Your task to perform on an android device: View the shopping cart on costco.com. Add razer blackwidow to the cart on costco.com Image 0: 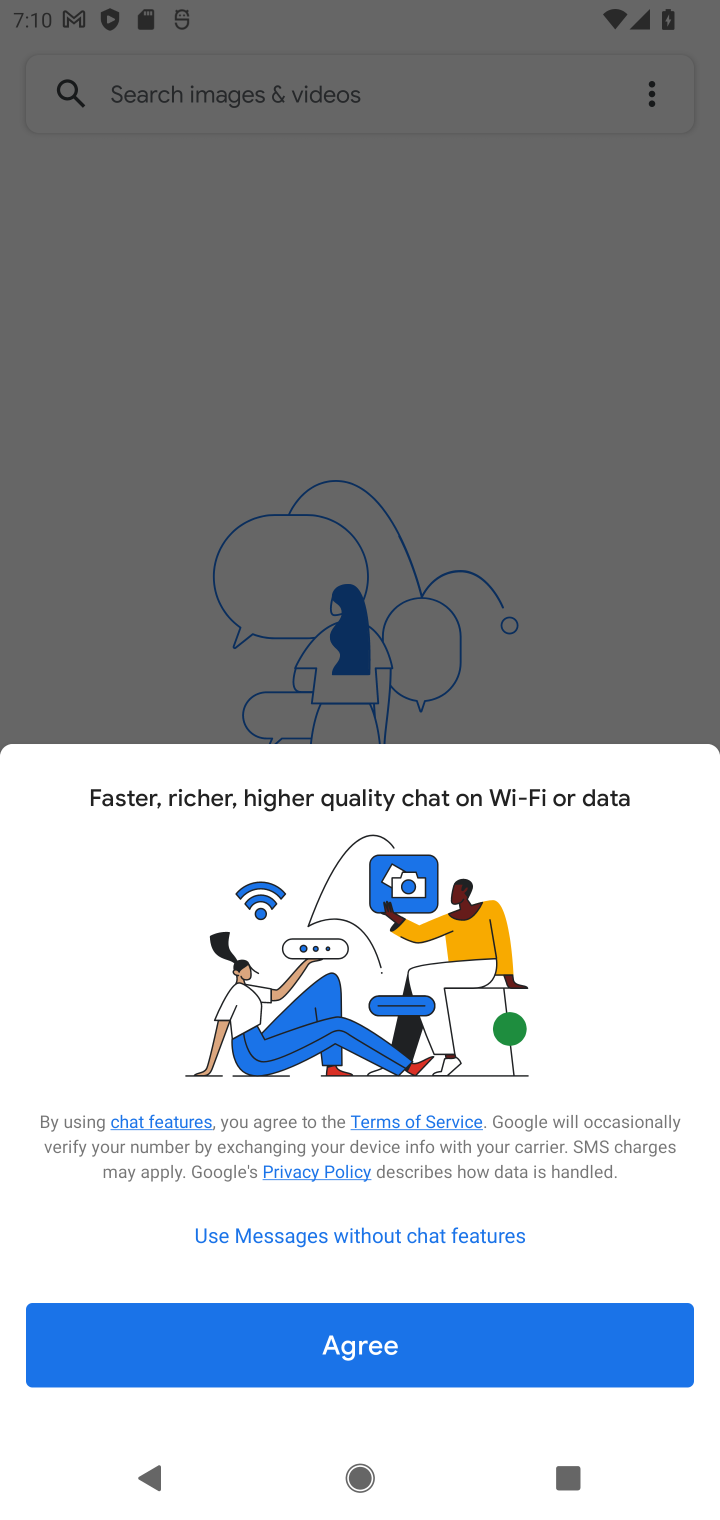
Step 0: press home button
Your task to perform on an android device: View the shopping cart on costco.com. Add razer blackwidow to the cart on costco.com Image 1: 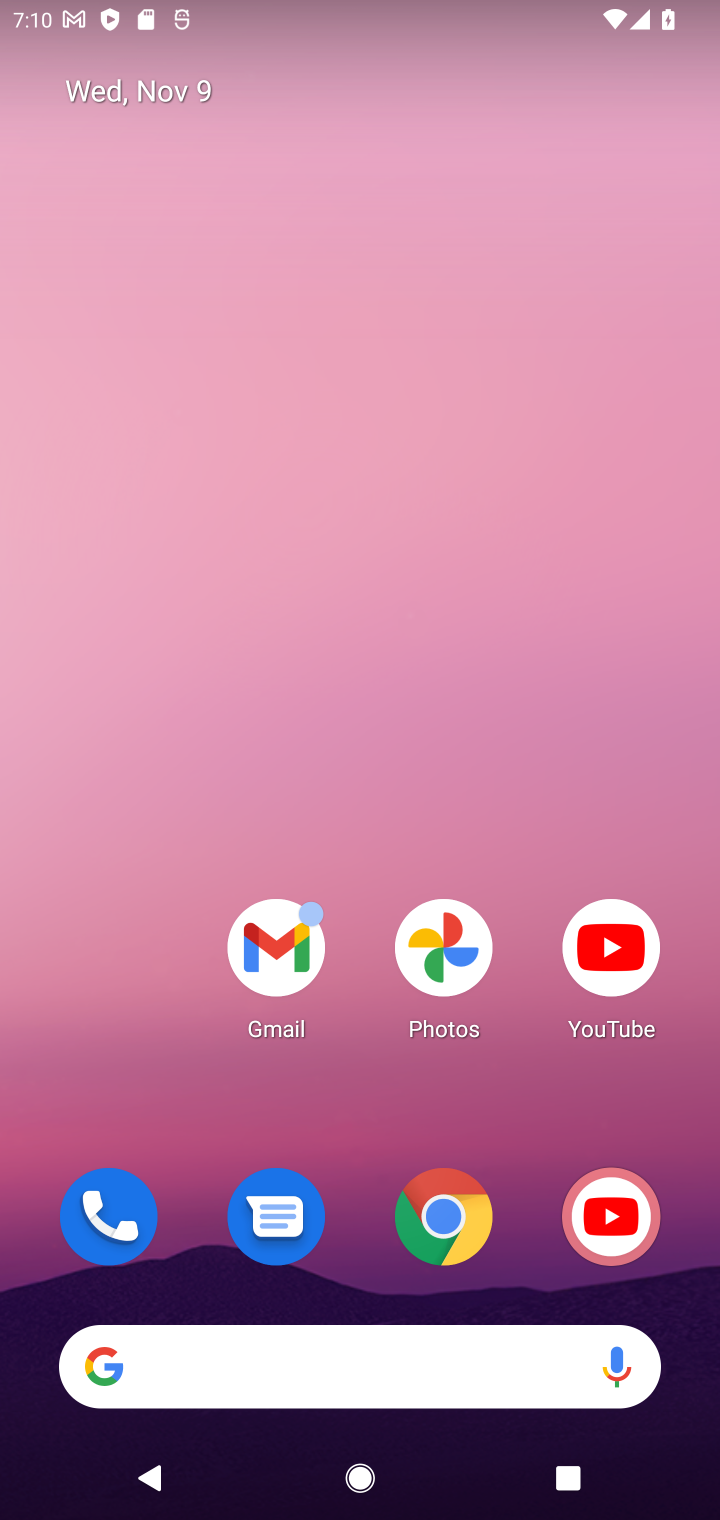
Step 1: drag from (388, 289) to (410, 155)
Your task to perform on an android device: View the shopping cart on costco.com. Add razer blackwidow to the cart on costco.com Image 2: 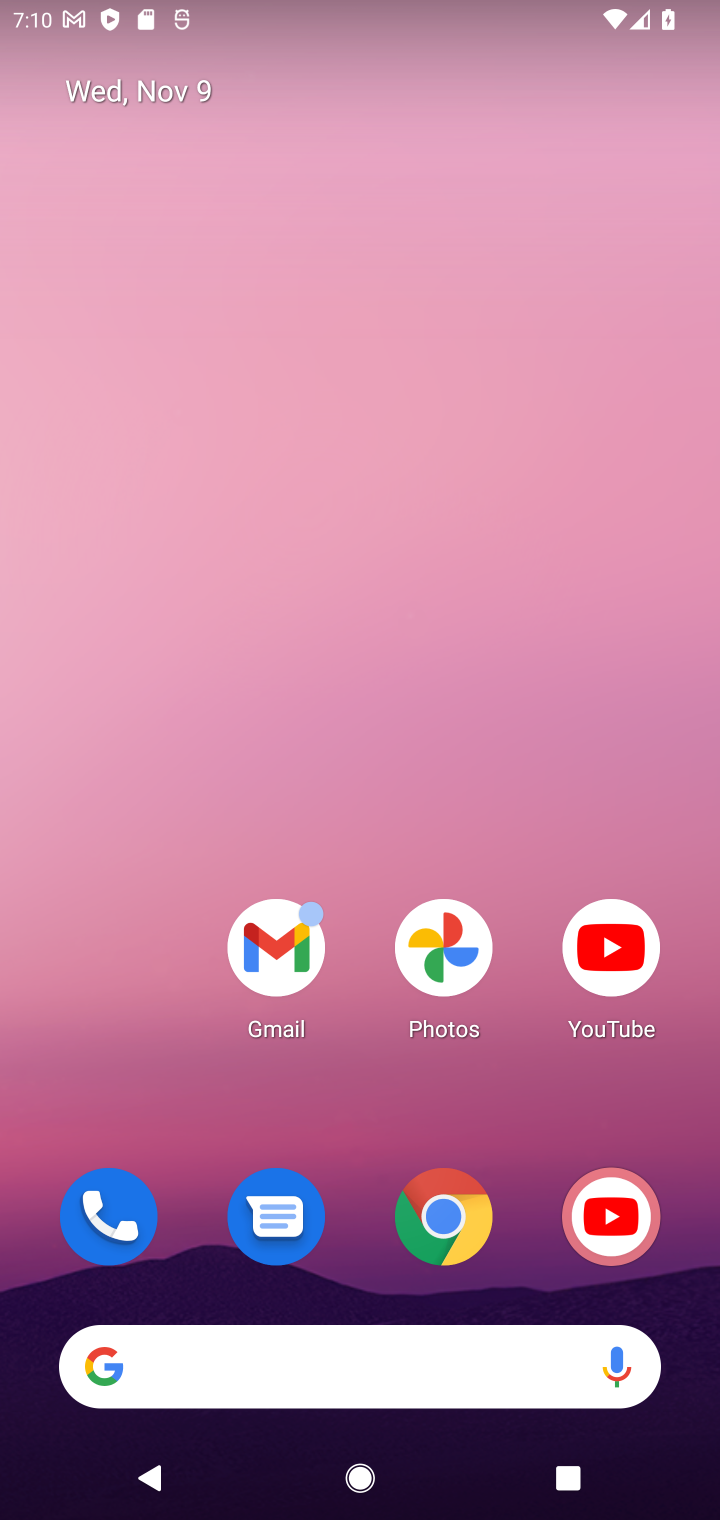
Step 2: drag from (469, 882) to (562, 243)
Your task to perform on an android device: View the shopping cart on costco.com. Add razer blackwidow to the cart on costco.com Image 3: 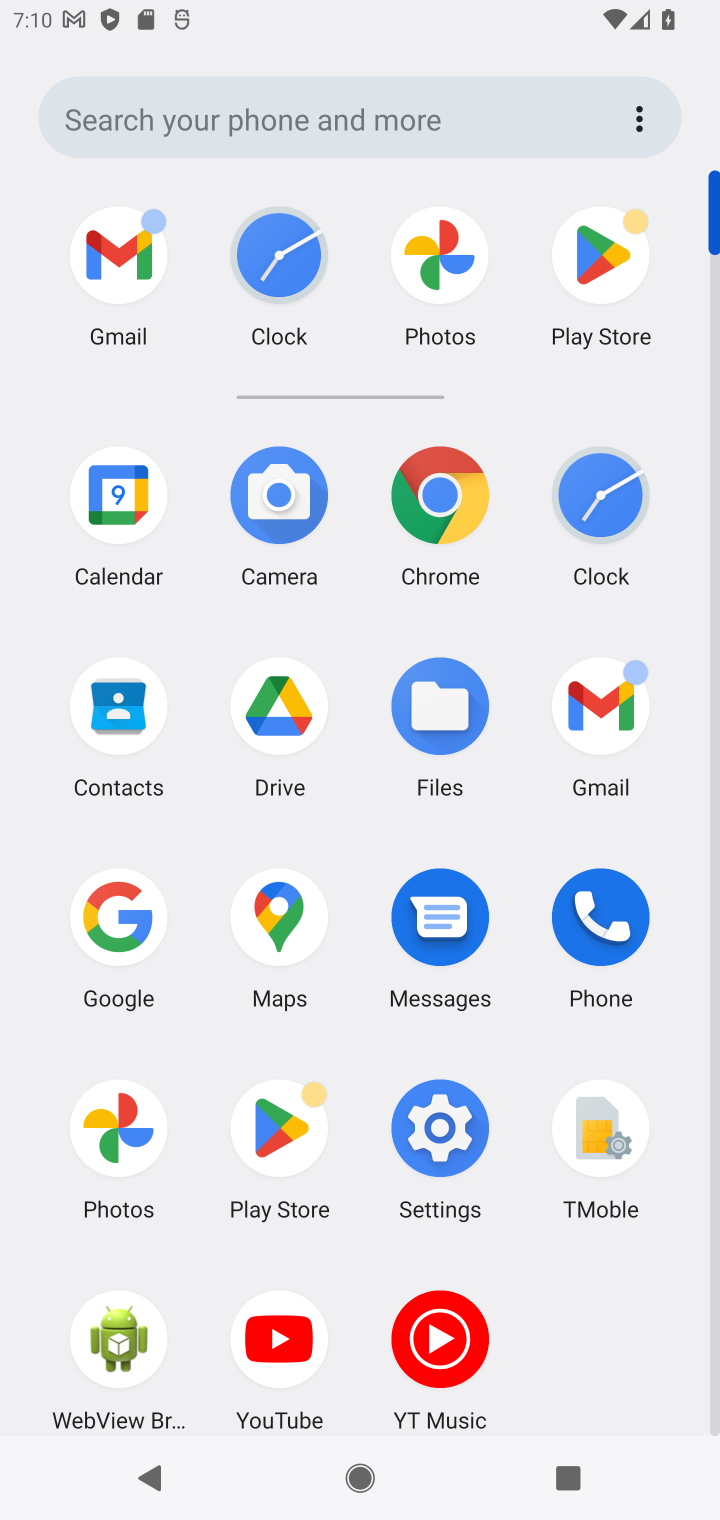
Step 3: click (445, 481)
Your task to perform on an android device: View the shopping cart on costco.com. Add razer blackwidow to the cart on costco.com Image 4: 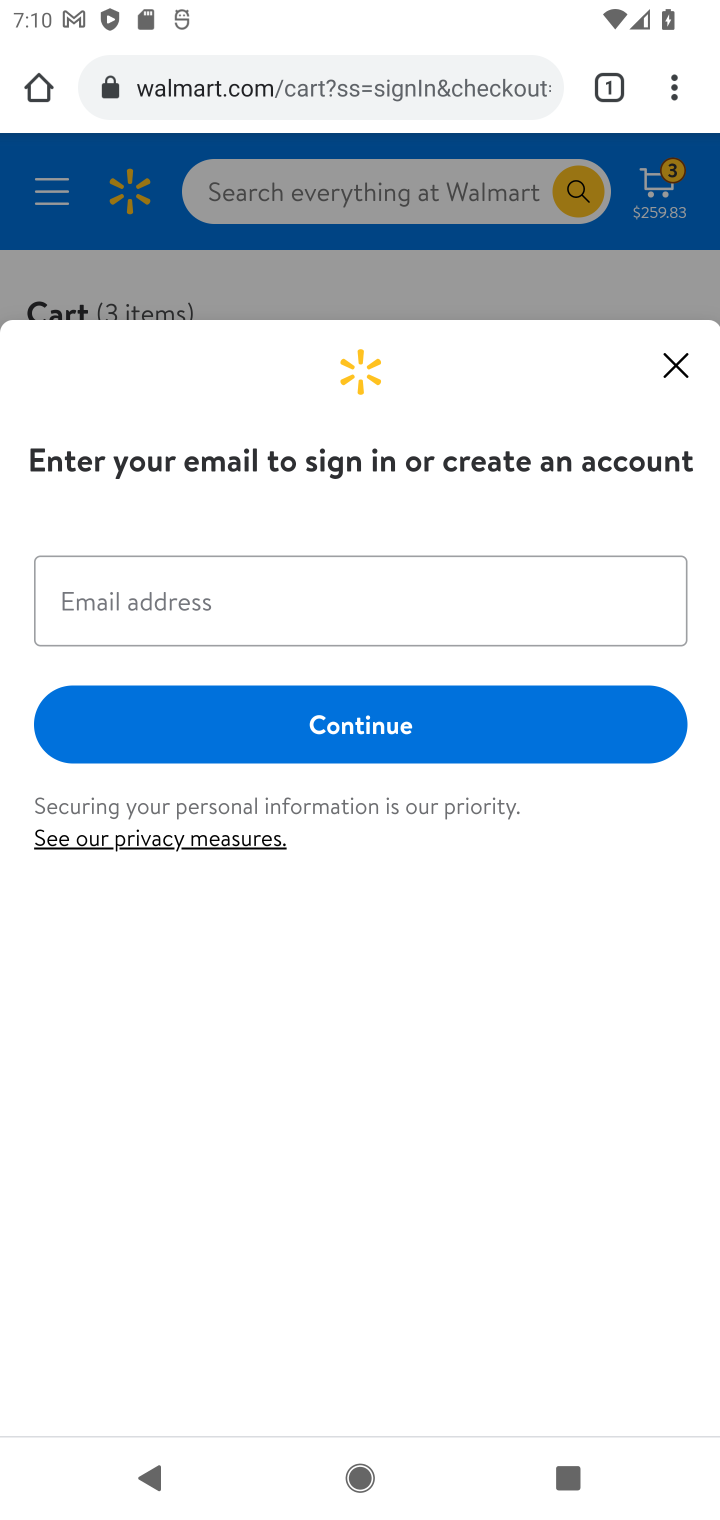
Step 4: click (338, 89)
Your task to perform on an android device: View the shopping cart on costco.com. Add razer blackwidow to the cart on costco.com Image 5: 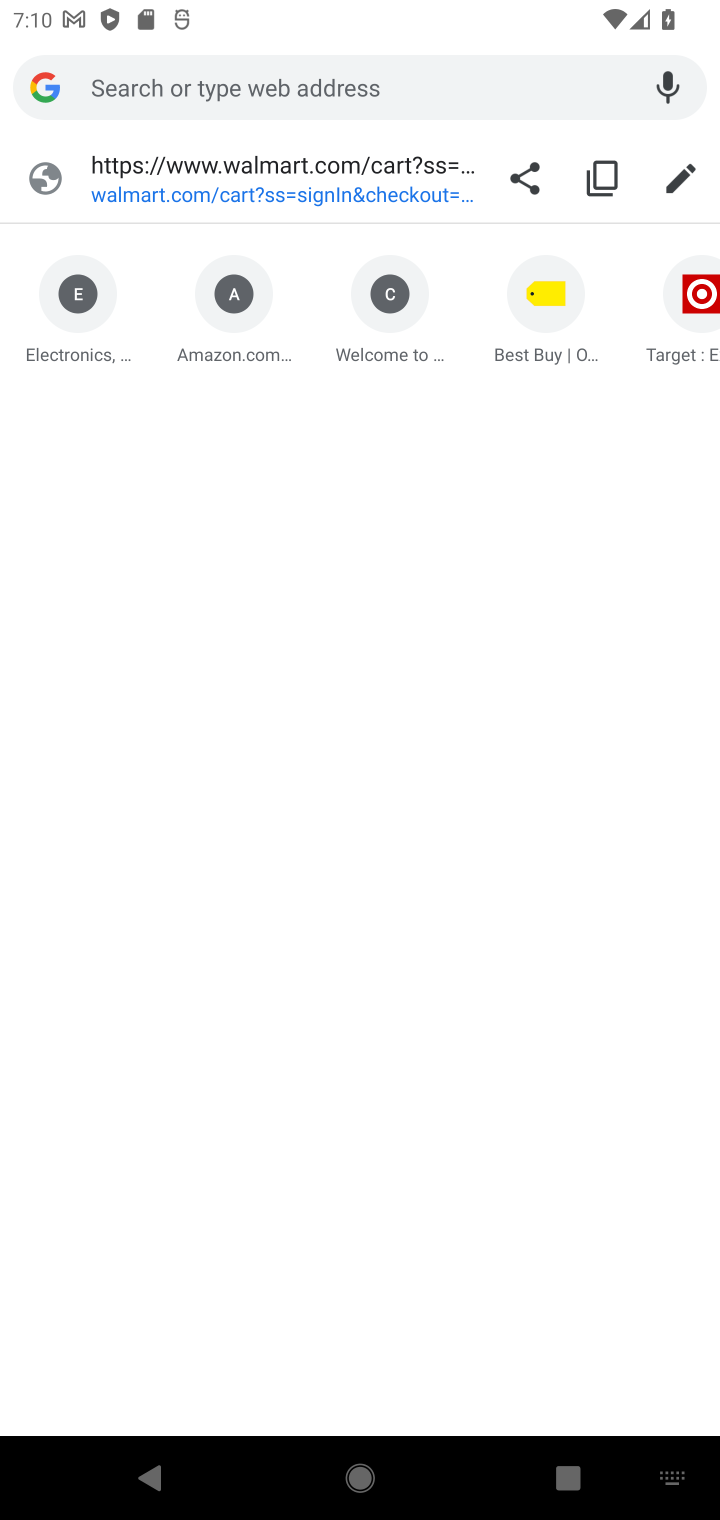
Step 5: type "costco.com"
Your task to perform on an android device: View the shopping cart on costco.com. Add razer blackwidow to the cart on costco.com Image 6: 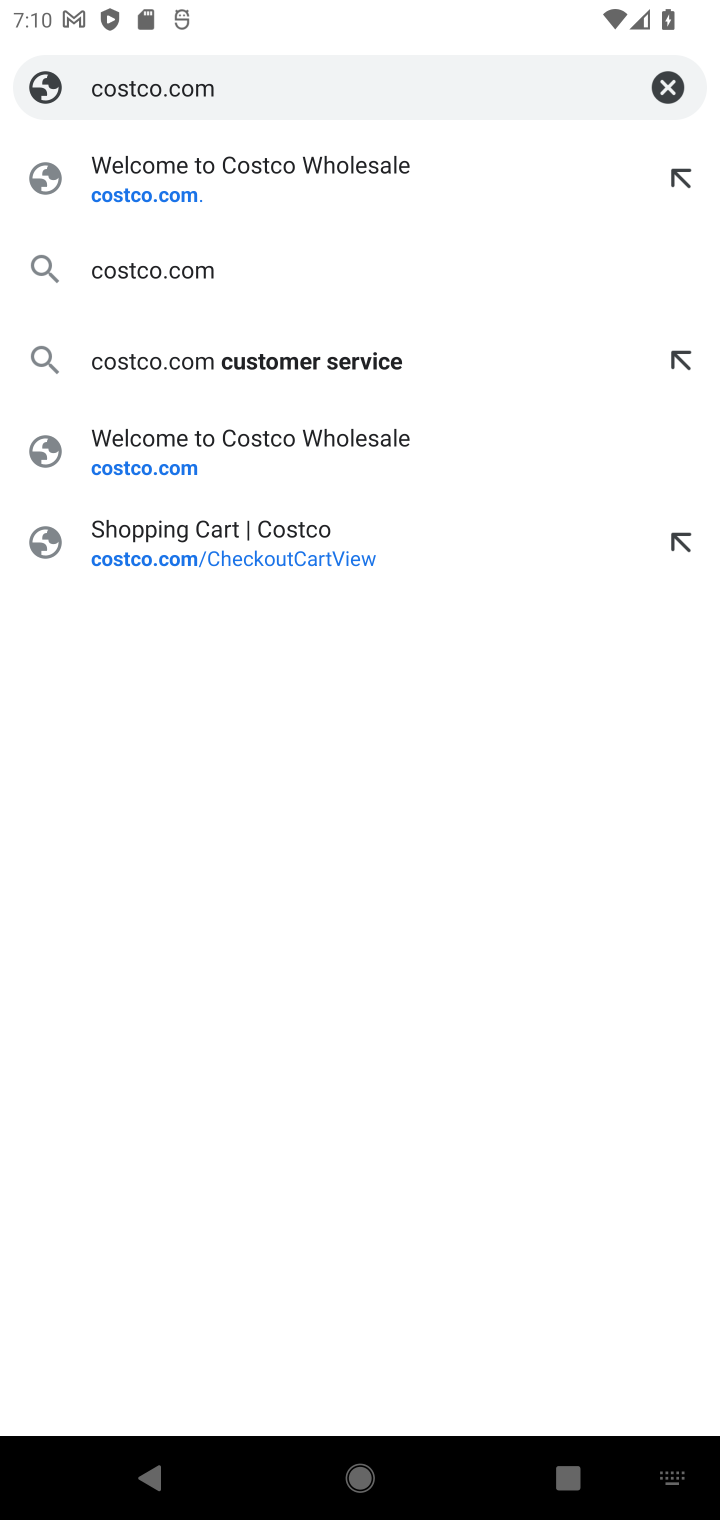
Step 6: press enter
Your task to perform on an android device: View the shopping cart on costco.com. Add razer blackwidow to the cart on costco.com Image 7: 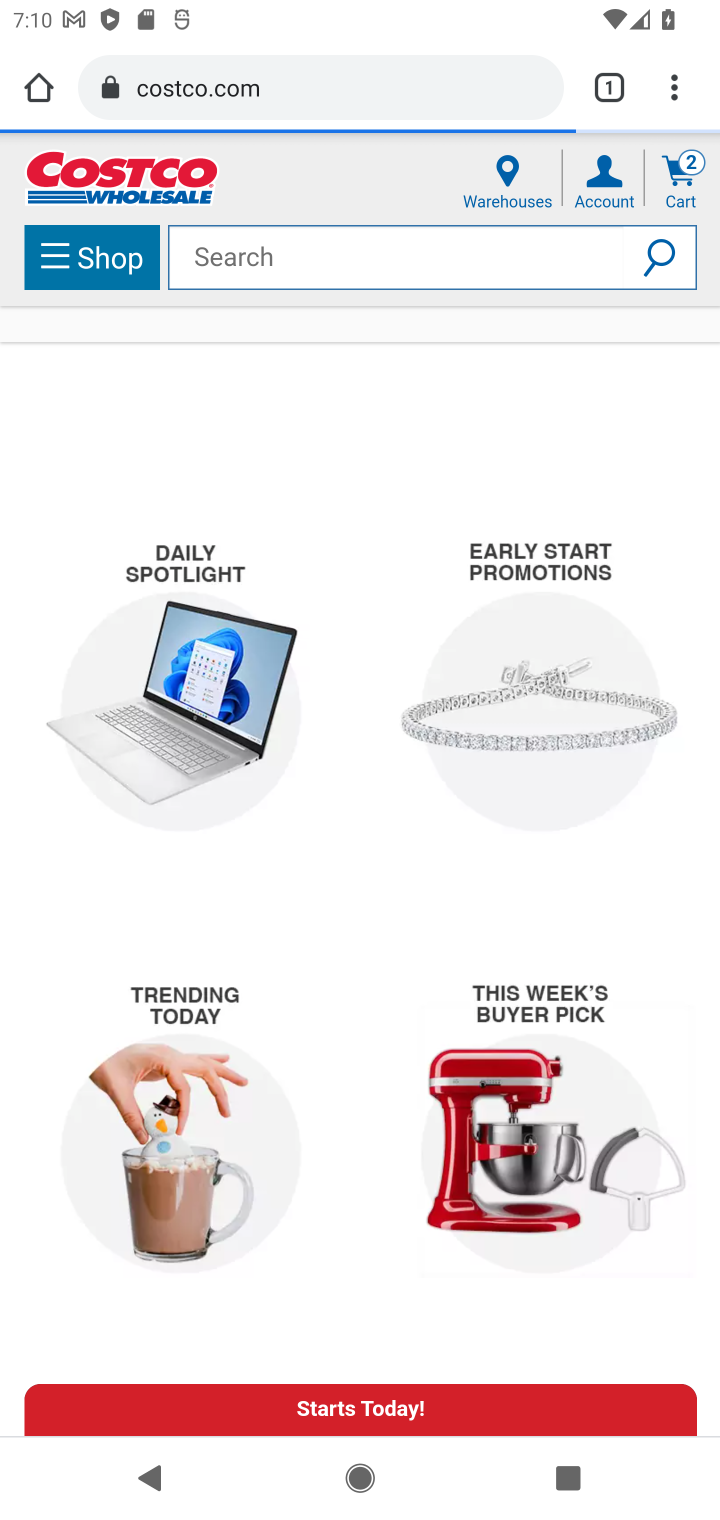
Step 7: click (389, 270)
Your task to perform on an android device: View the shopping cart on costco.com. Add razer blackwidow to the cart on costco.com Image 8: 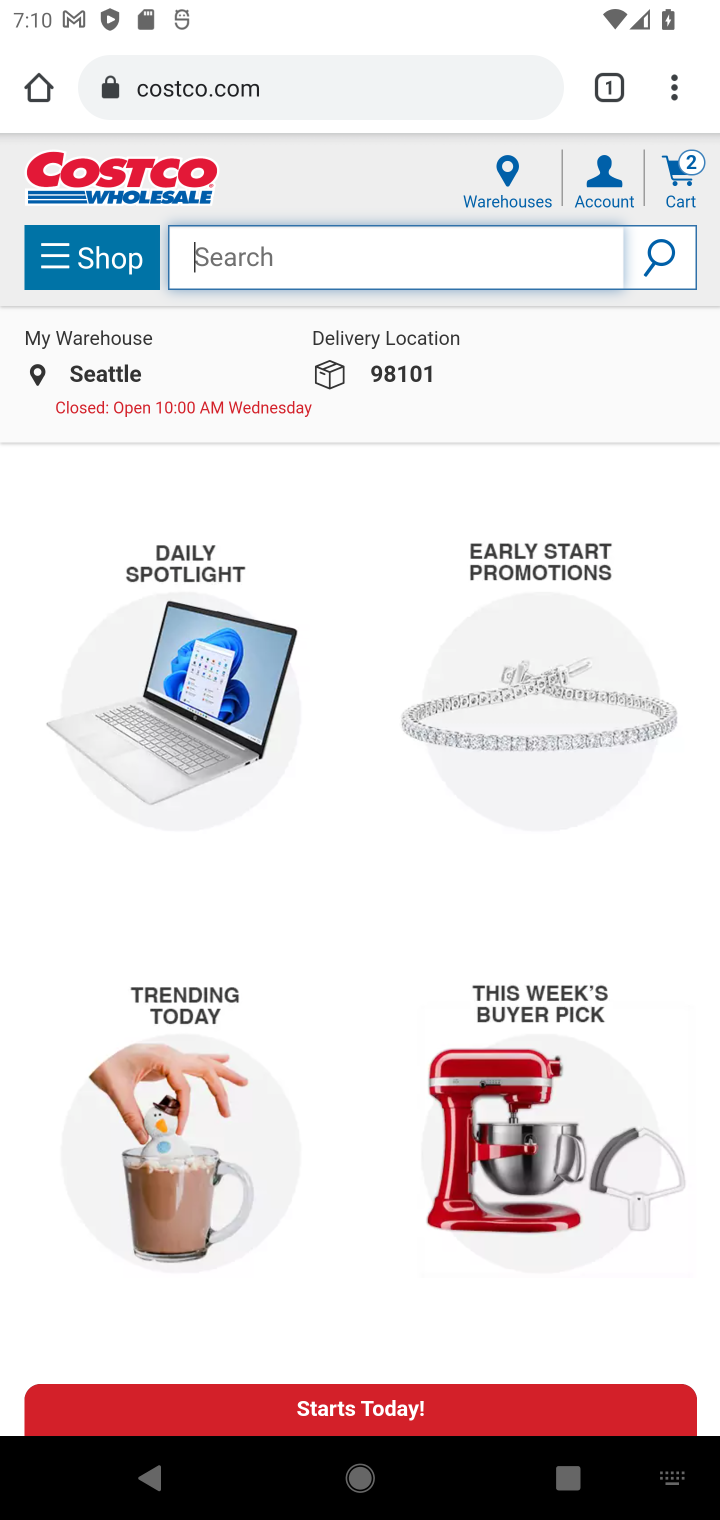
Step 8: type "razer blackwindow"
Your task to perform on an android device: View the shopping cart on costco.com. Add razer blackwidow to the cart on costco.com Image 9: 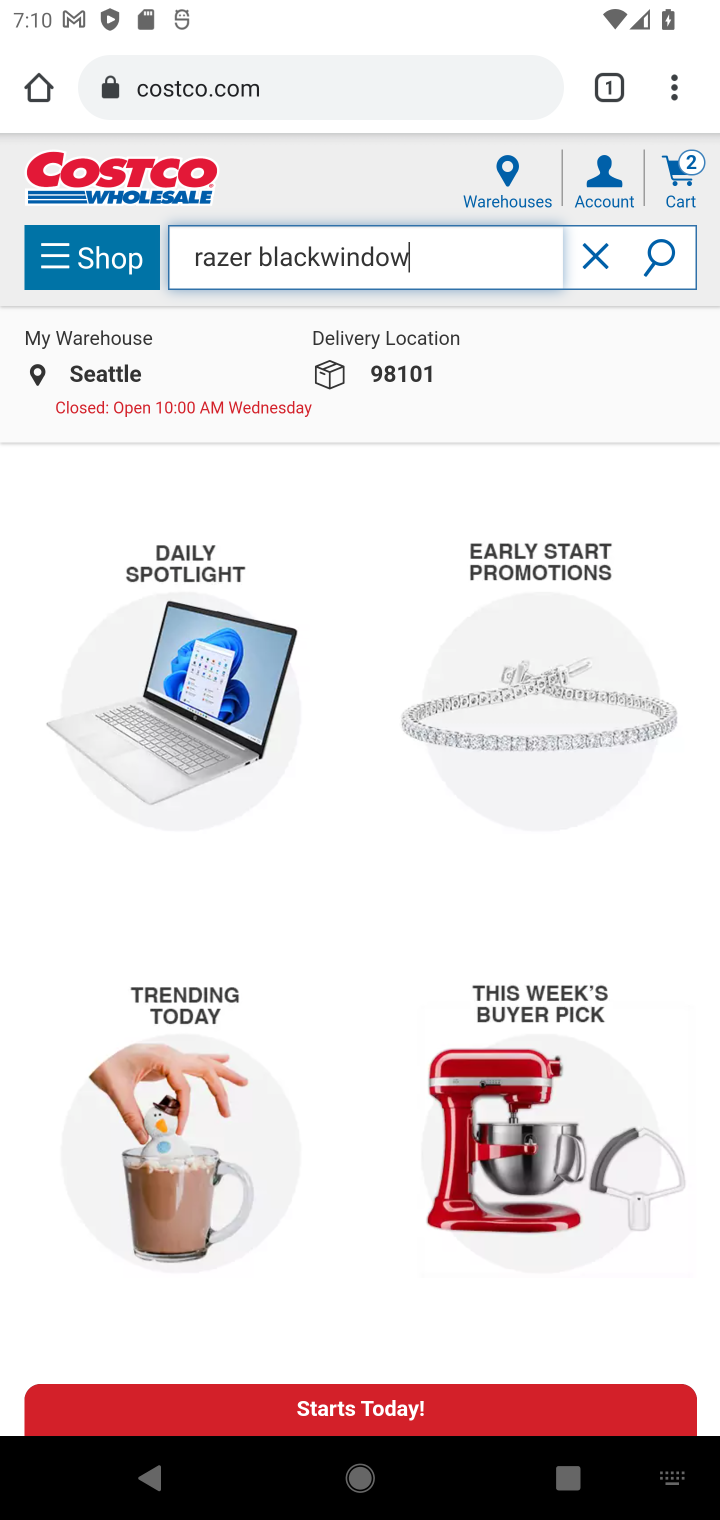
Step 9: press enter
Your task to perform on an android device: View the shopping cart on costco.com. Add razer blackwidow to the cart on costco.com Image 10: 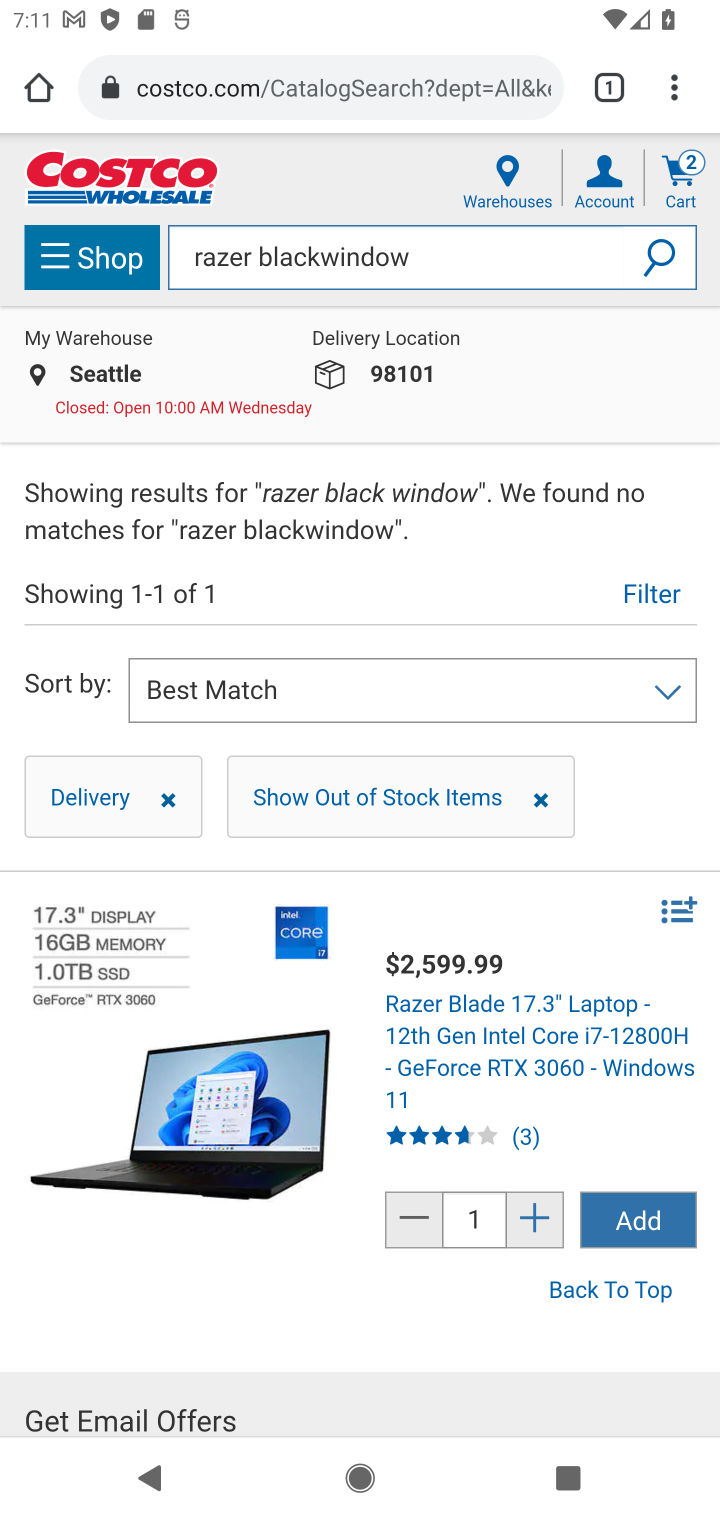
Step 10: click (662, 1215)
Your task to perform on an android device: View the shopping cart on costco.com. Add razer blackwidow to the cart on costco.com Image 11: 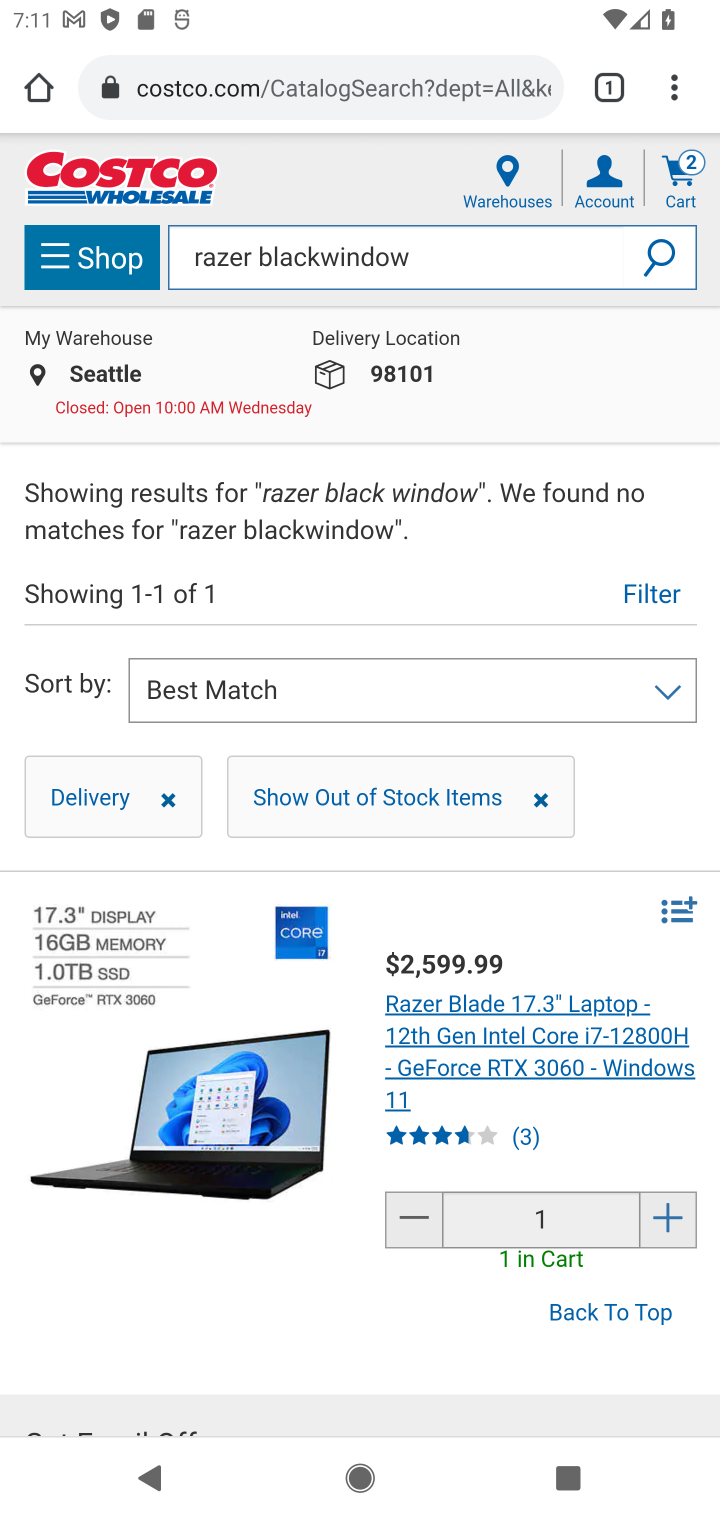
Step 11: click (692, 153)
Your task to perform on an android device: View the shopping cart on costco.com. Add razer blackwidow to the cart on costco.com Image 12: 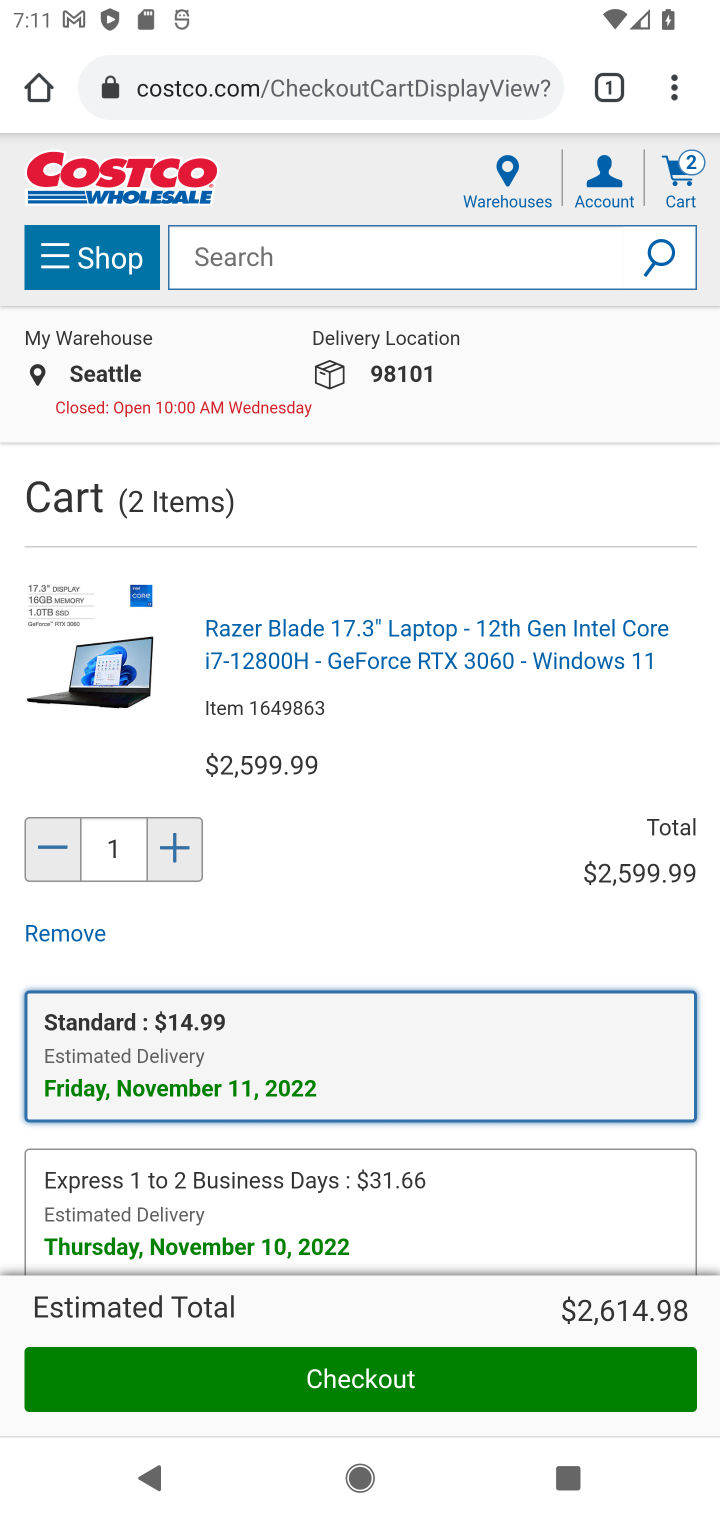
Step 12: task complete